Your task to perform on an android device: allow cookies in the chrome app Image 0: 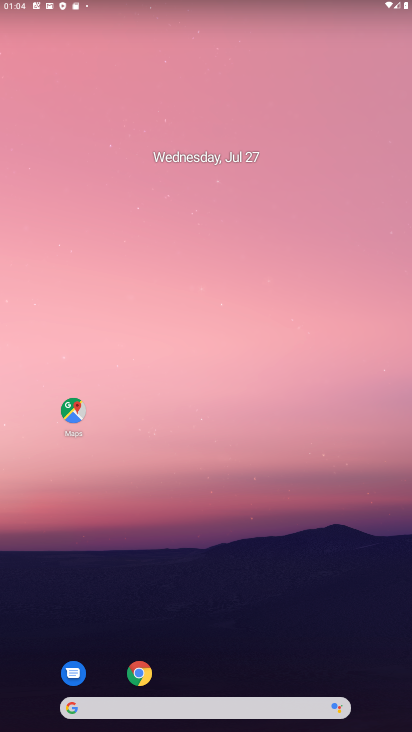
Step 0: drag from (217, 670) to (198, 268)
Your task to perform on an android device: allow cookies in the chrome app Image 1: 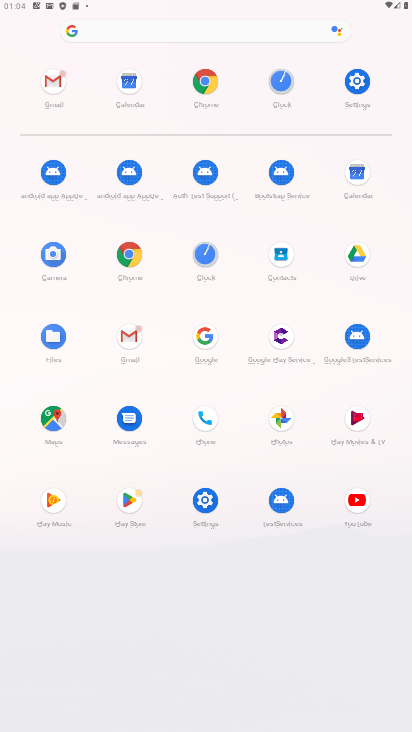
Step 1: click (127, 247)
Your task to perform on an android device: allow cookies in the chrome app Image 2: 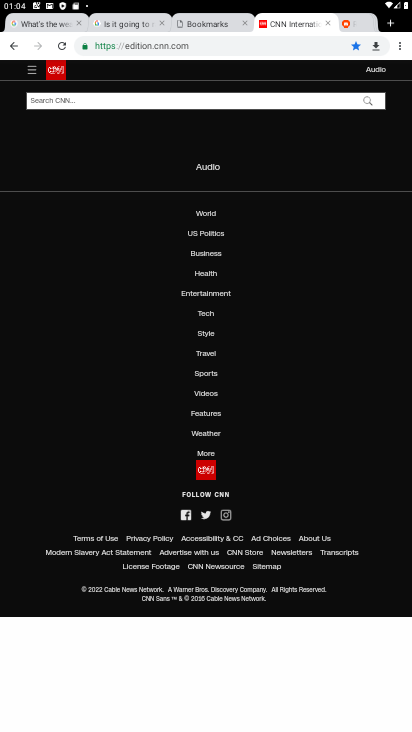
Step 2: click (396, 44)
Your task to perform on an android device: allow cookies in the chrome app Image 3: 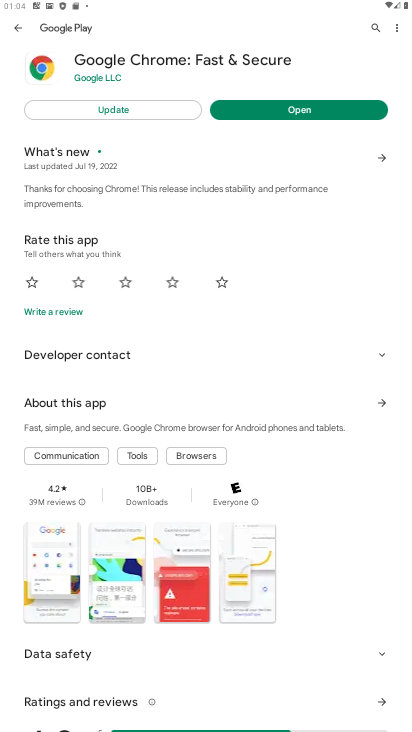
Step 3: press back button
Your task to perform on an android device: allow cookies in the chrome app Image 4: 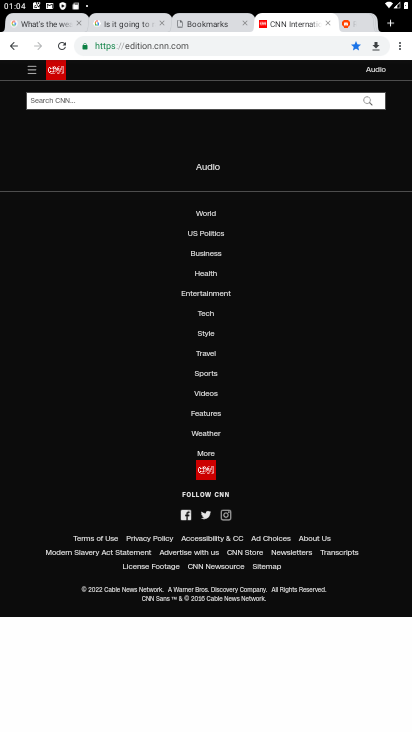
Step 4: click (404, 48)
Your task to perform on an android device: allow cookies in the chrome app Image 5: 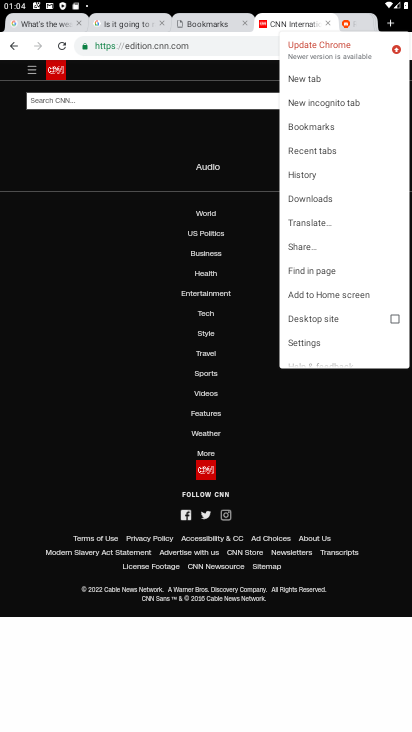
Step 5: click (317, 337)
Your task to perform on an android device: allow cookies in the chrome app Image 6: 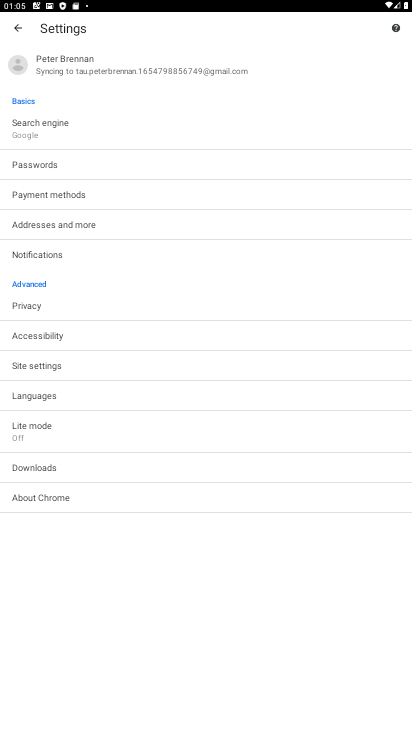
Step 6: click (104, 370)
Your task to perform on an android device: allow cookies in the chrome app Image 7: 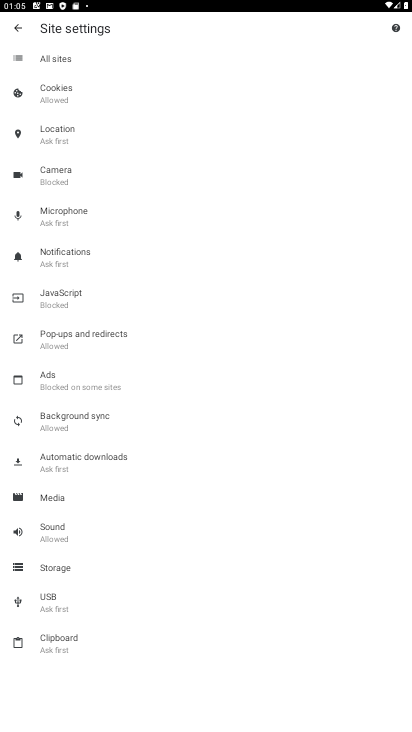
Step 7: click (73, 89)
Your task to perform on an android device: allow cookies in the chrome app Image 8: 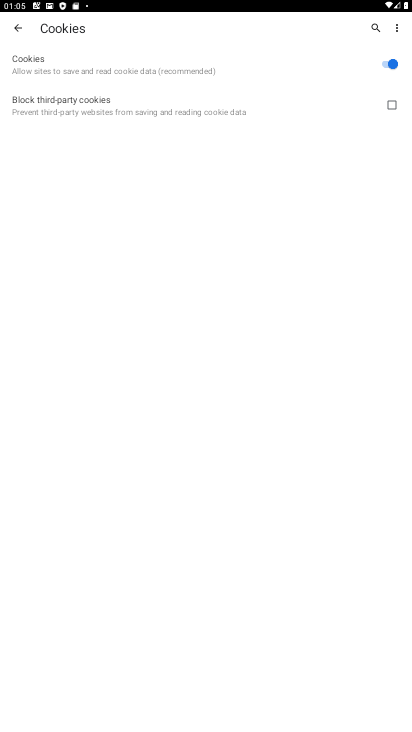
Step 8: task complete